Your task to perform on an android device: set an alarm Image 0: 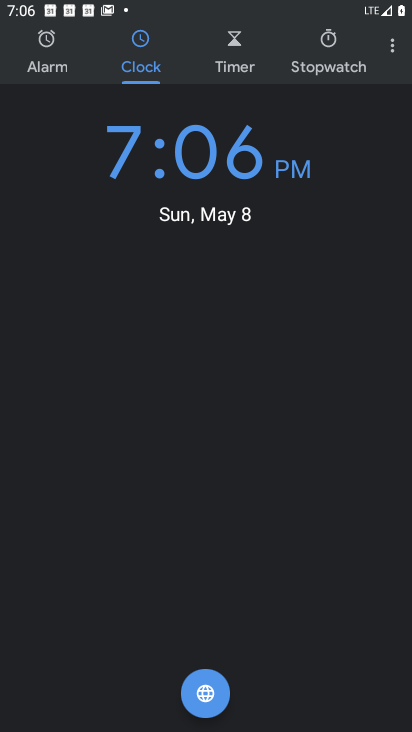
Step 0: click (37, 47)
Your task to perform on an android device: set an alarm Image 1: 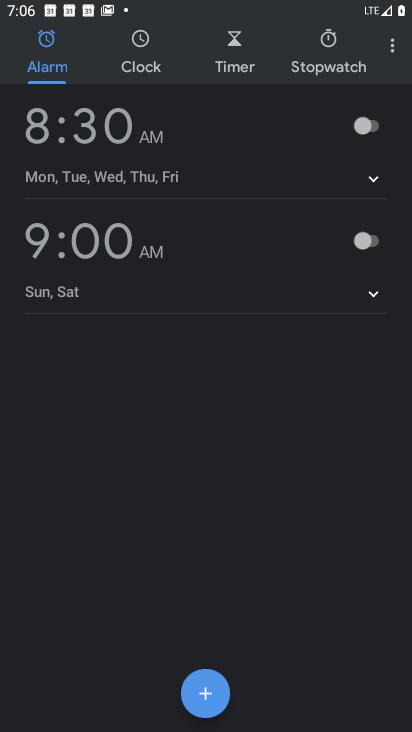
Step 1: click (204, 695)
Your task to perform on an android device: set an alarm Image 2: 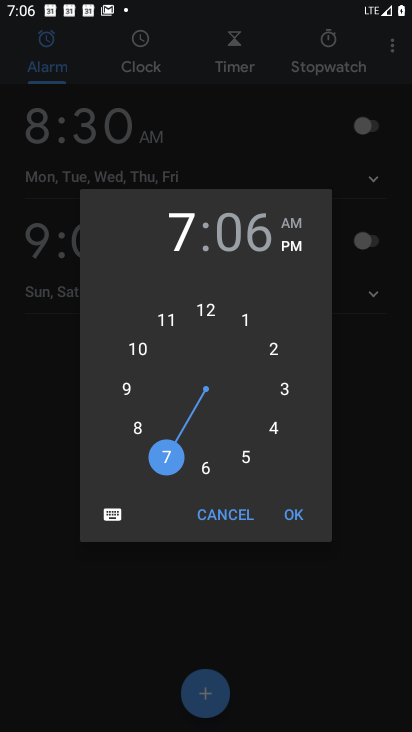
Step 2: click (152, 414)
Your task to perform on an android device: set an alarm Image 3: 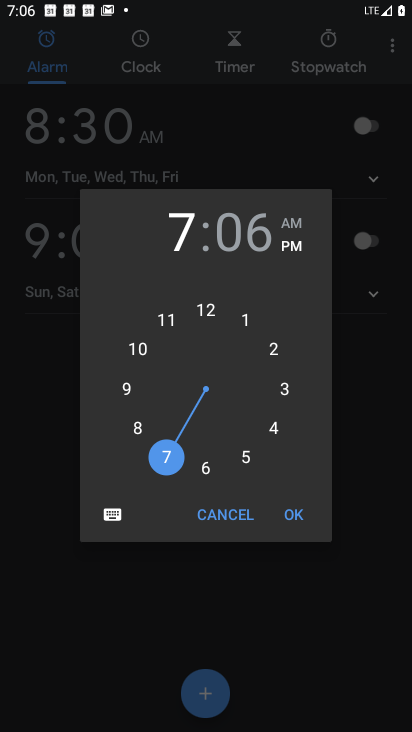
Step 3: click (299, 515)
Your task to perform on an android device: set an alarm Image 4: 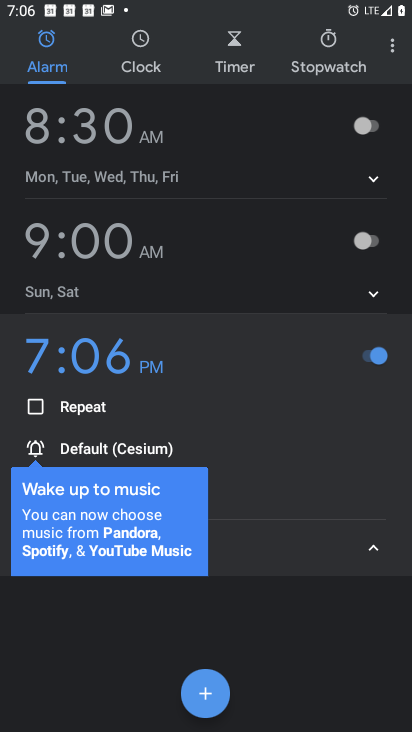
Step 4: task complete